Your task to perform on an android device: find snoozed emails in the gmail app Image 0: 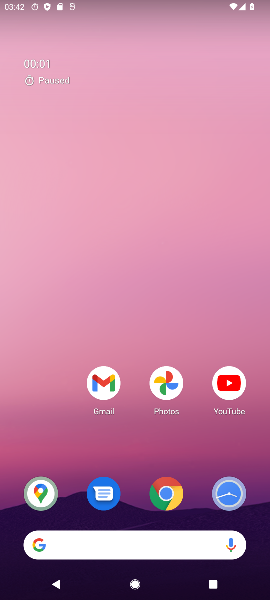
Step 0: drag from (63, 329) to (139, 19)
Your task to perform on an android device: find snoozed emails in the gmail app Image 1: 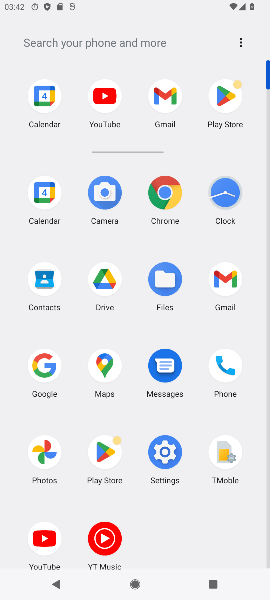
Step 1: click (230, 277)
Your task to perform on an android device: find snoozed emails in the gmail app Image 2: 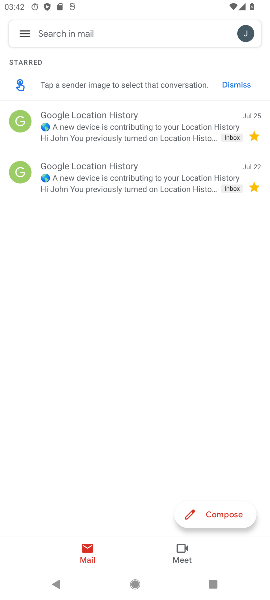
Step 2: click (22, 23)
Your task to perform on an android device: find snoozed emails in the gmail app Image 3: 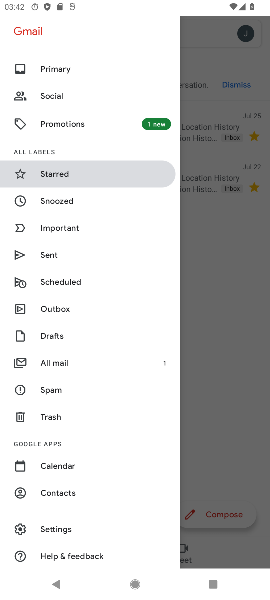
Step 3: click (59, 202)
Your task to perform on an android device: find snoozed emails in the gmail app Image 4: 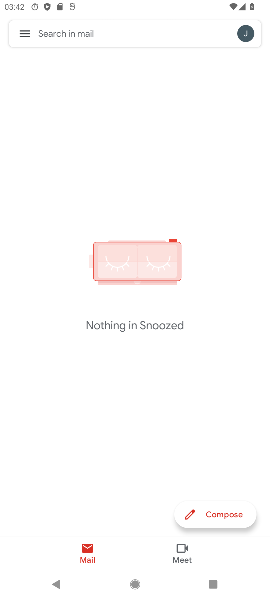
Step 4: task complete